Your task to perform on an android device: open app "Google Drive" (install if not already installed) Image 0: 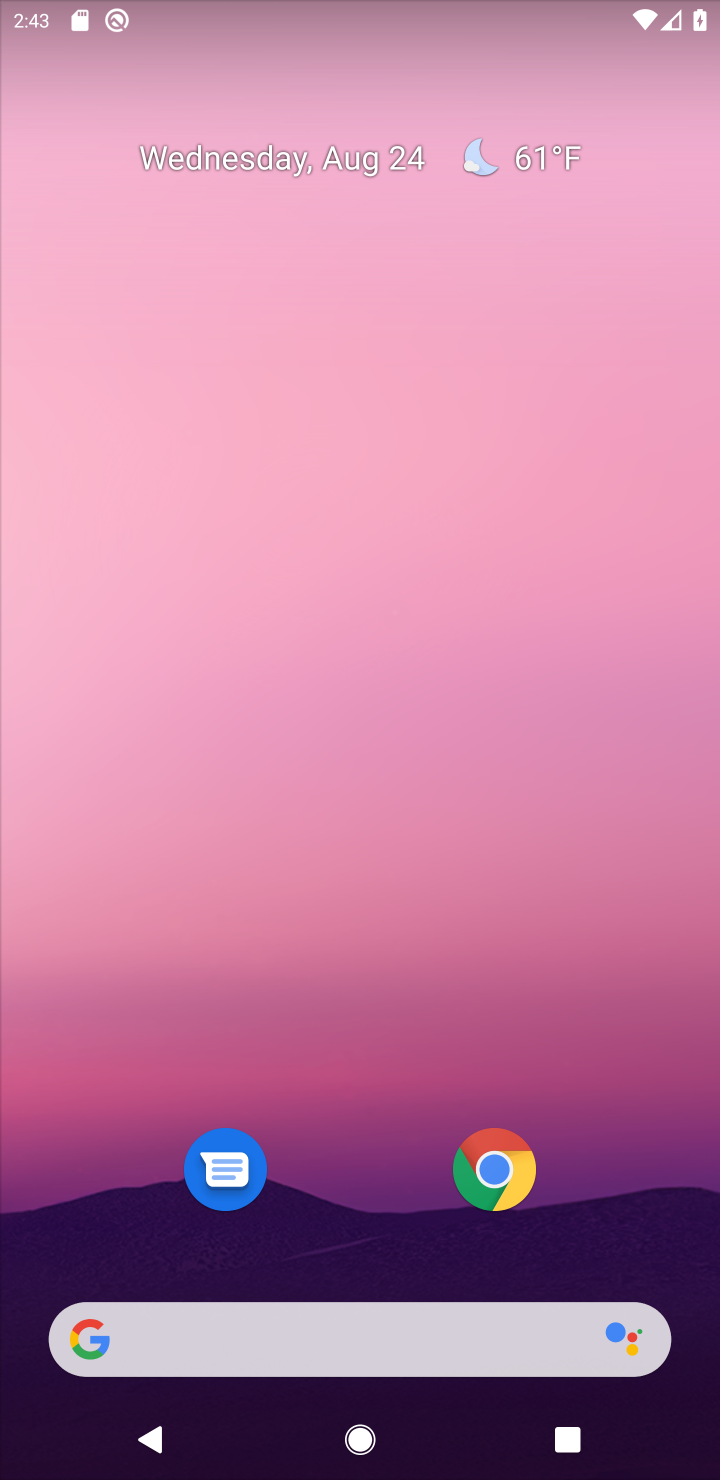
Step 0: drag from (387, 1251) to (342, 143)
Your task to perform on an android device: open app "Google Drive" (install if not already installed) Image 1: 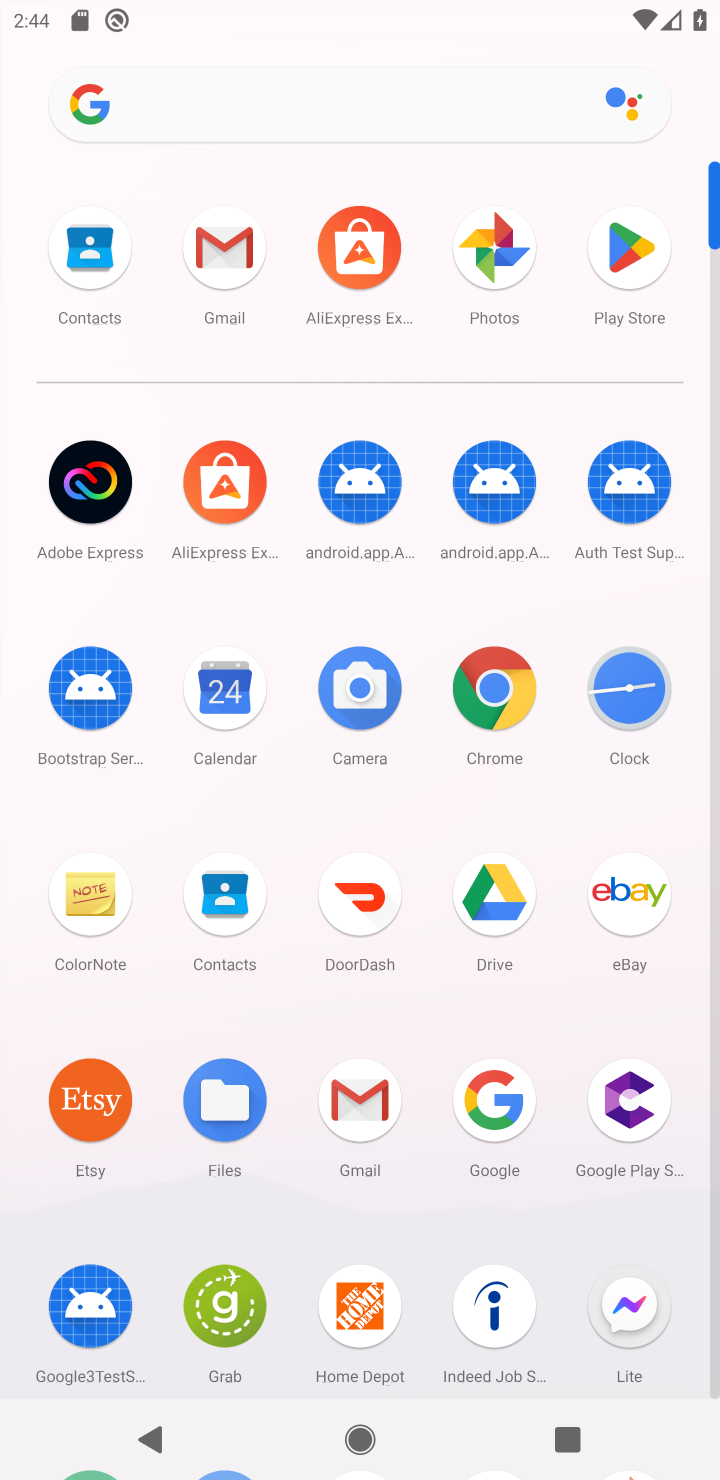
Step 1: click (651, 232)
Your task to perform on an android device: open app "Google Drive" (install if not already installed) Image 2: 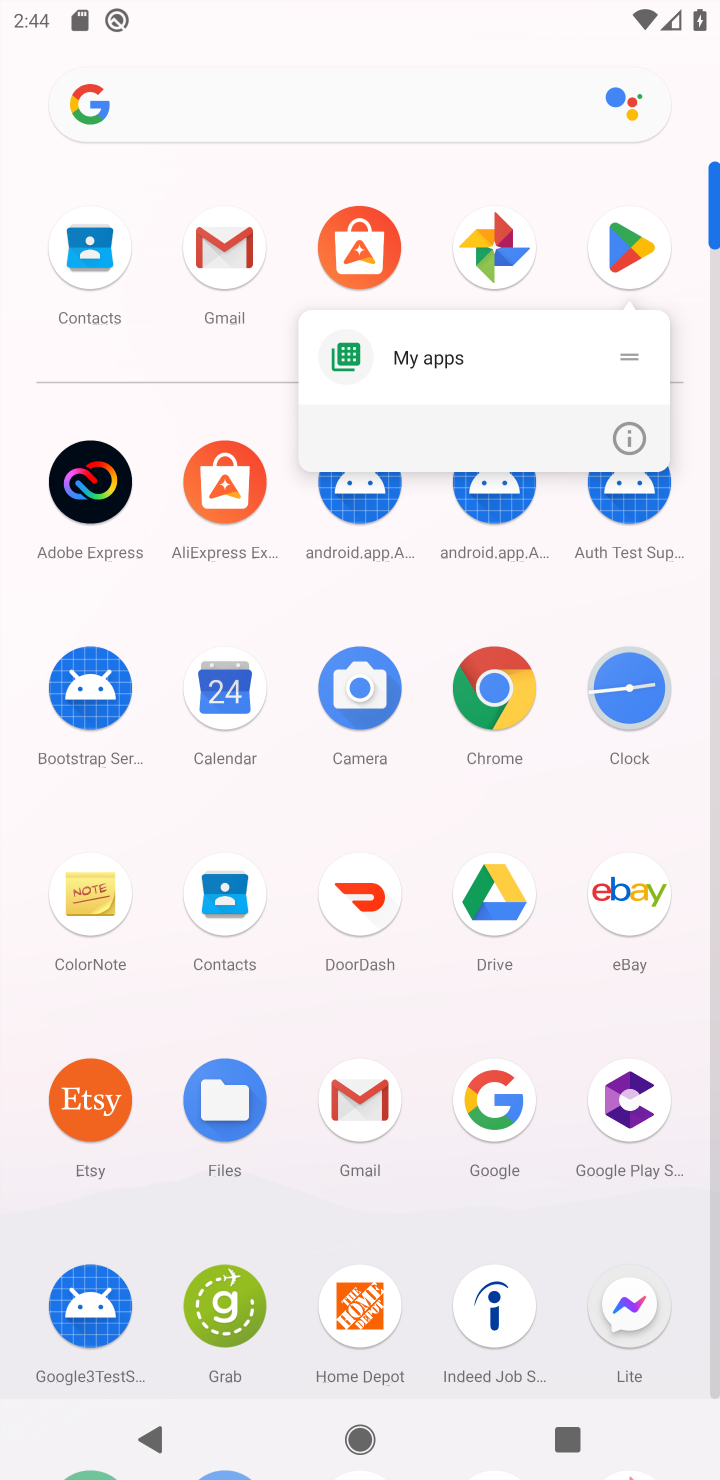
Step 2: click (620, 243)
Your task to perform on an android device: open app "Google Drive" (install if not already installed) Image 3: 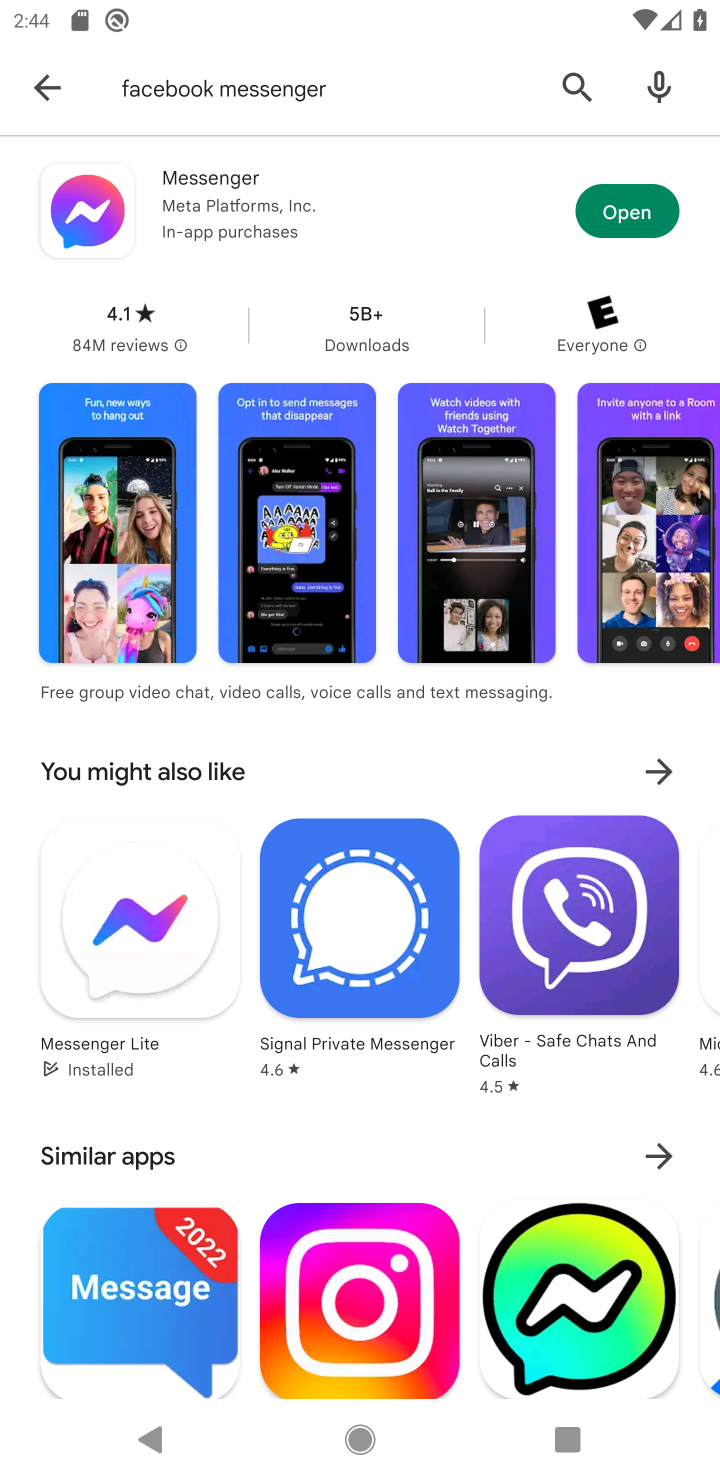
Step 3: click (113, 90)
Your task to perform on an android device: open app "Google Drive" (install if not already installed) Image 4: 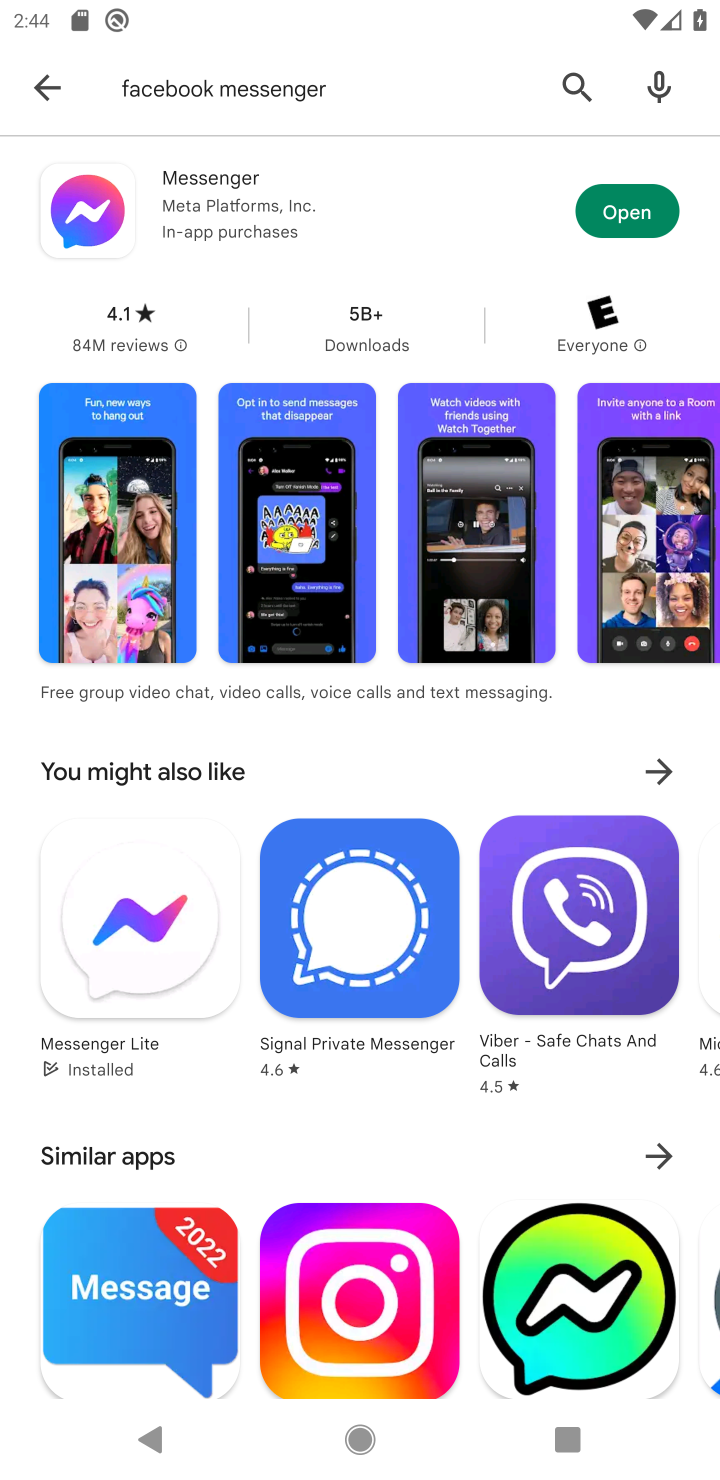
Step 4: click (567, 79)
Your task to perform on an android device: open app "Google Drive" (install if not already installed) Image 5: 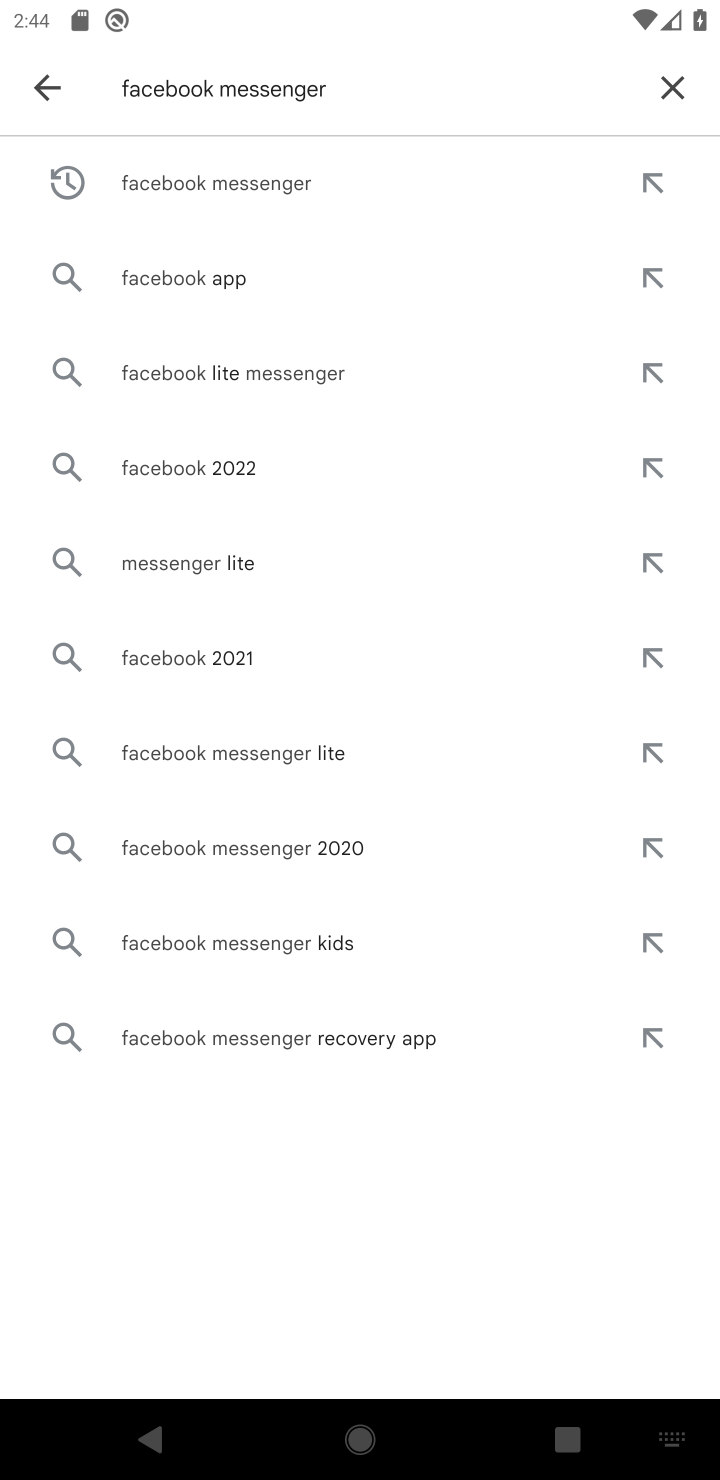
Step 5: click (664, 95)
Your task to perform on an android device: open app "Google Drive" (install if not already installed) Image 6: 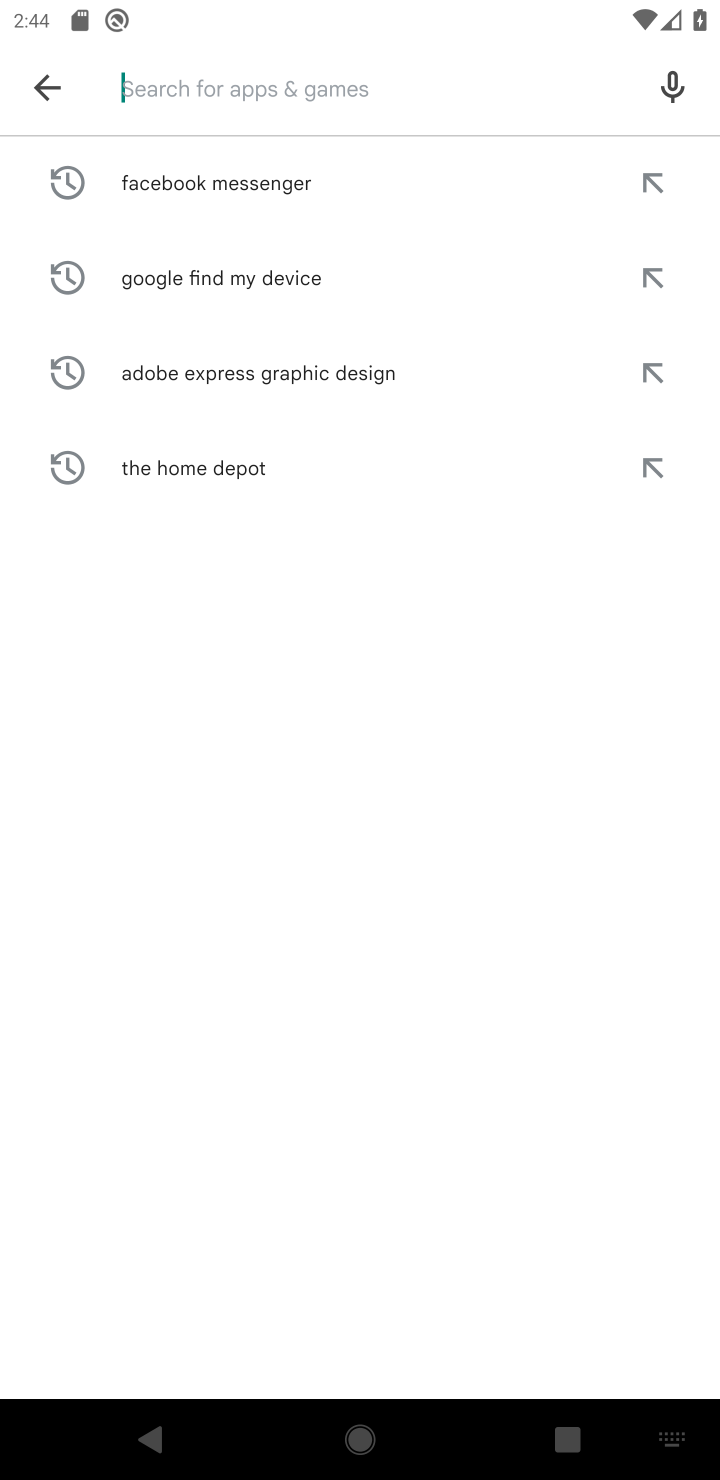
Step 6: type "Google Drive"
Your task to perform on an android device: open app "Google Drive" (install if not already installed) Image 7: 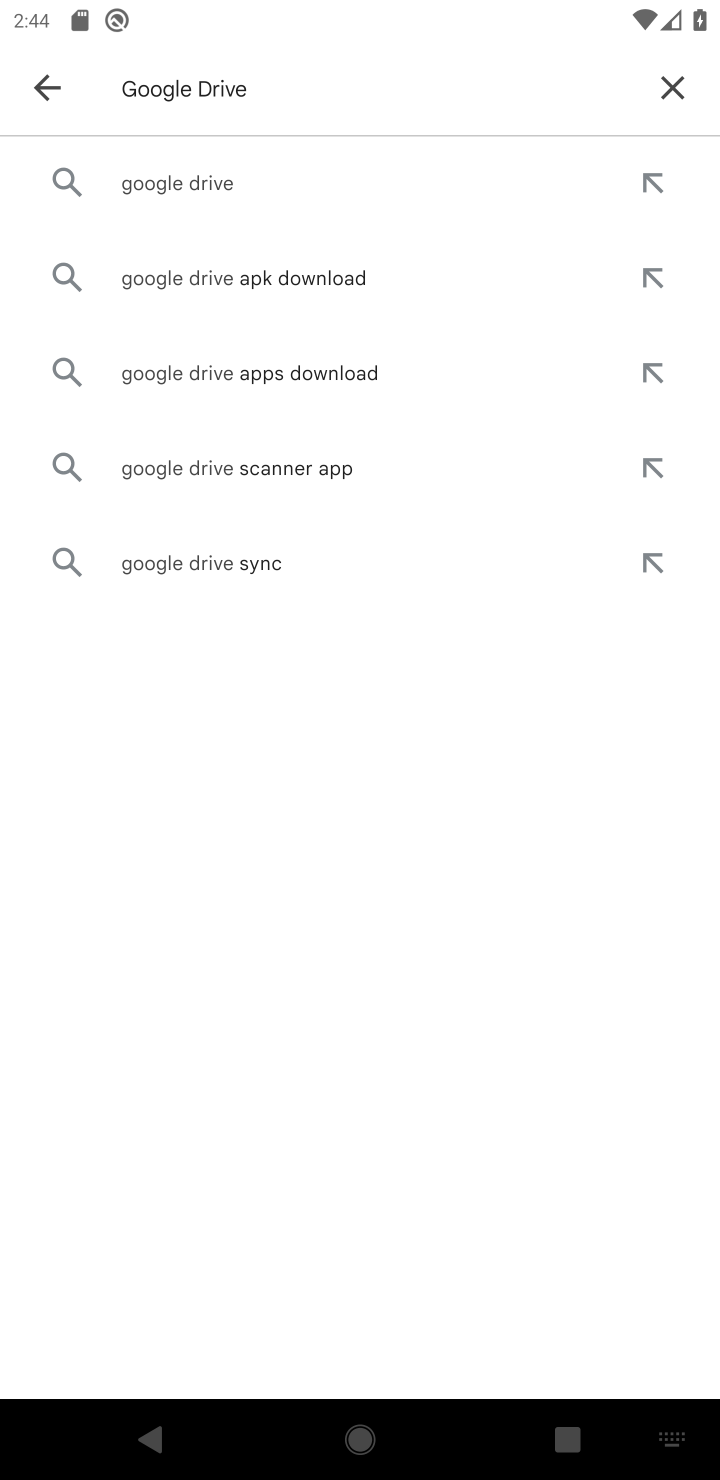
Step 7: click (168, 171)
Your task to perform on an android device: open app "Google Drive" (install if not already installed) Image 8: 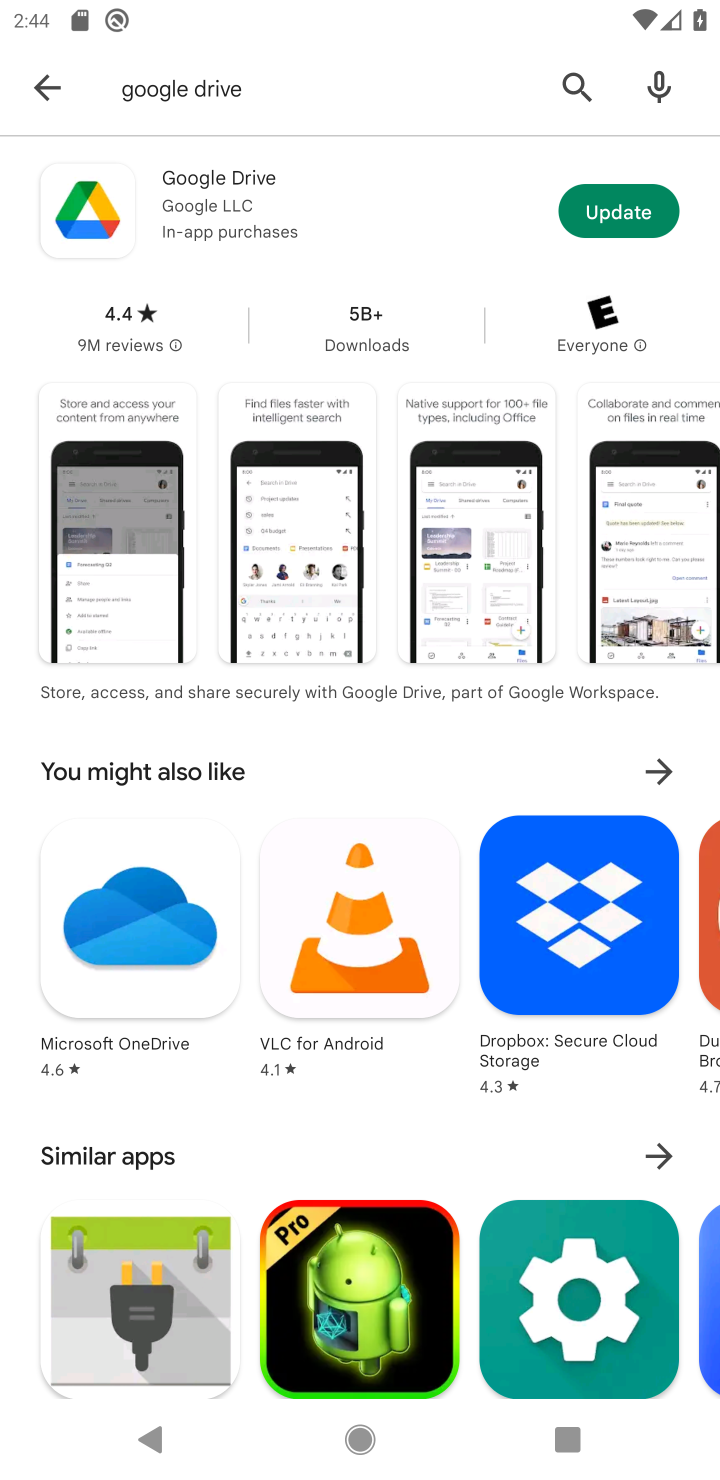
Step 8: click (581, 201)
Your task to perform on an android device: open app "Google Drive" (install if not already installed) Image 9: 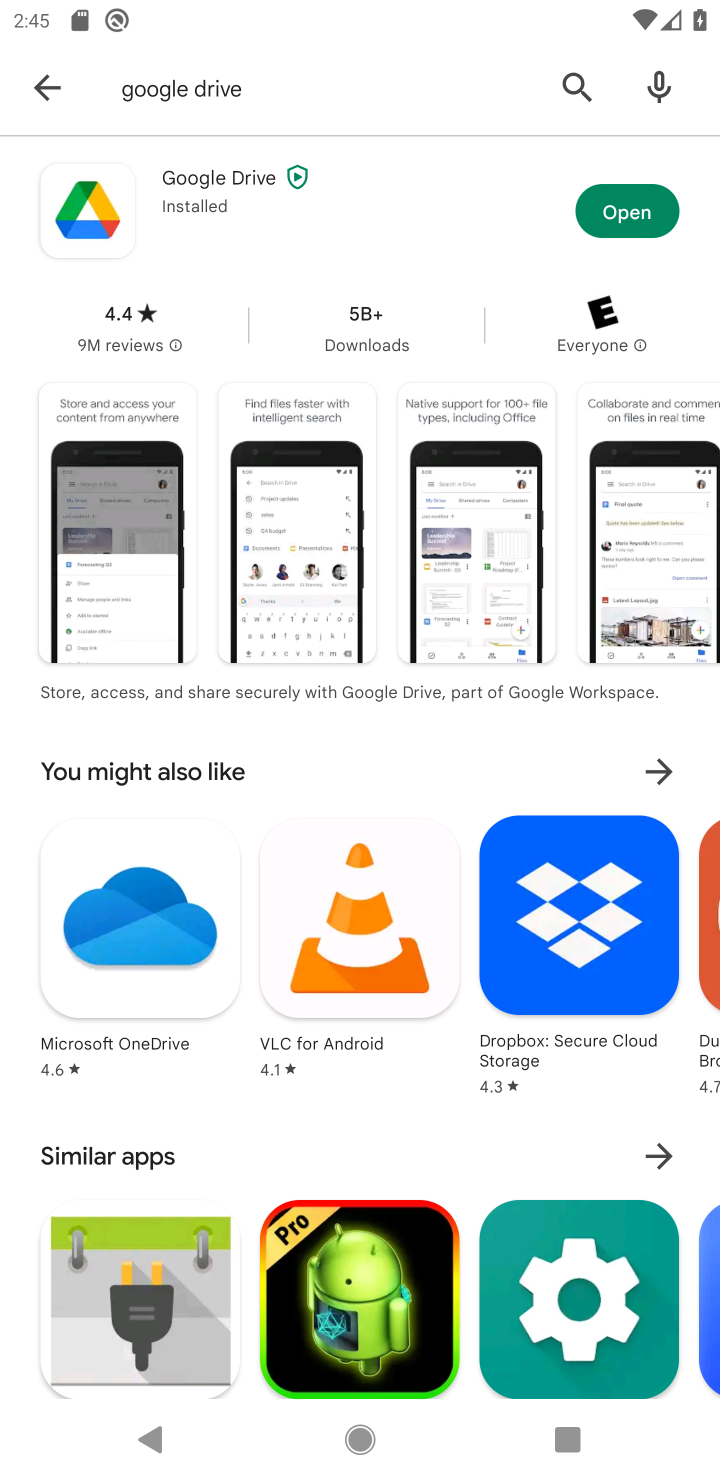
Step 9: click (613, 228)
Your task to perform on an android device: open app "Google Drive" (install if not already installed) Image 10: 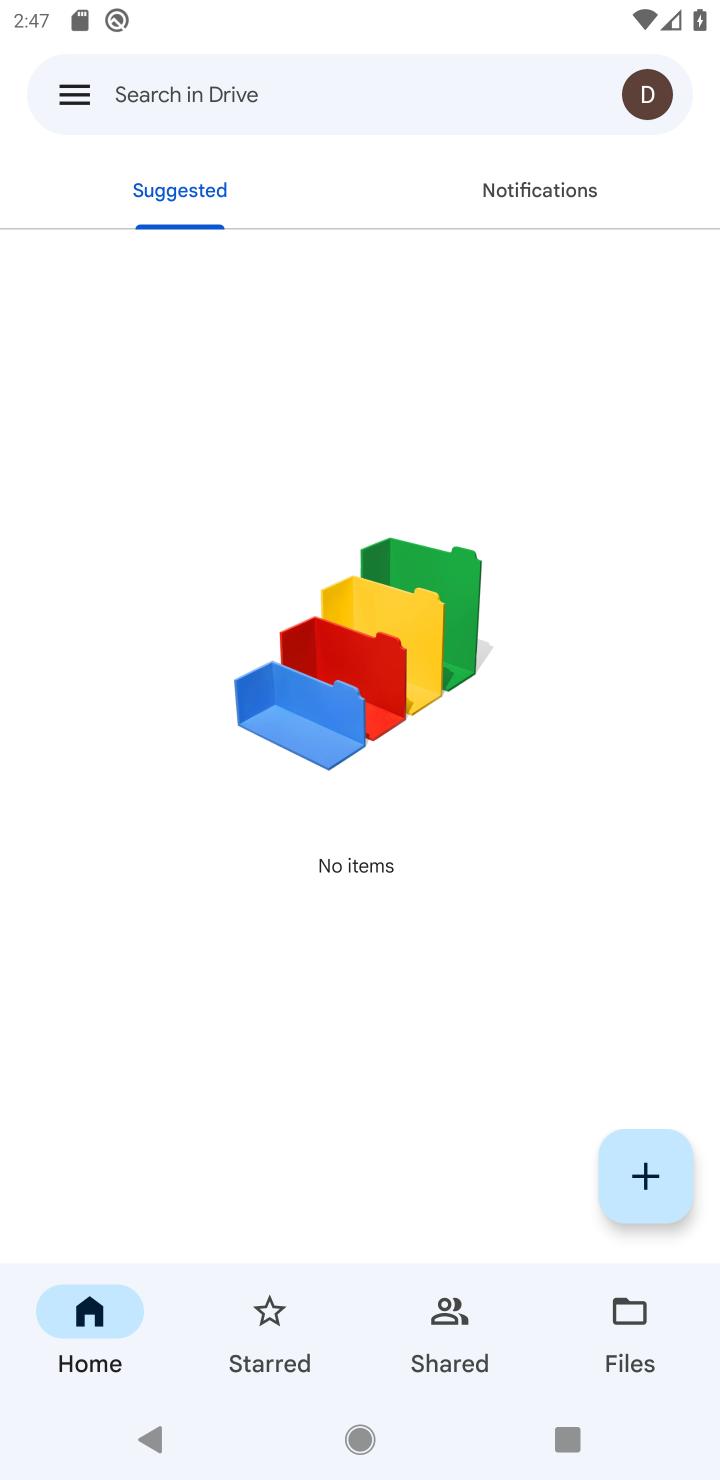
Step 10: press back button
Your task to perform on an android device: open app "Google Drive" (install if not already installed) Image 11: 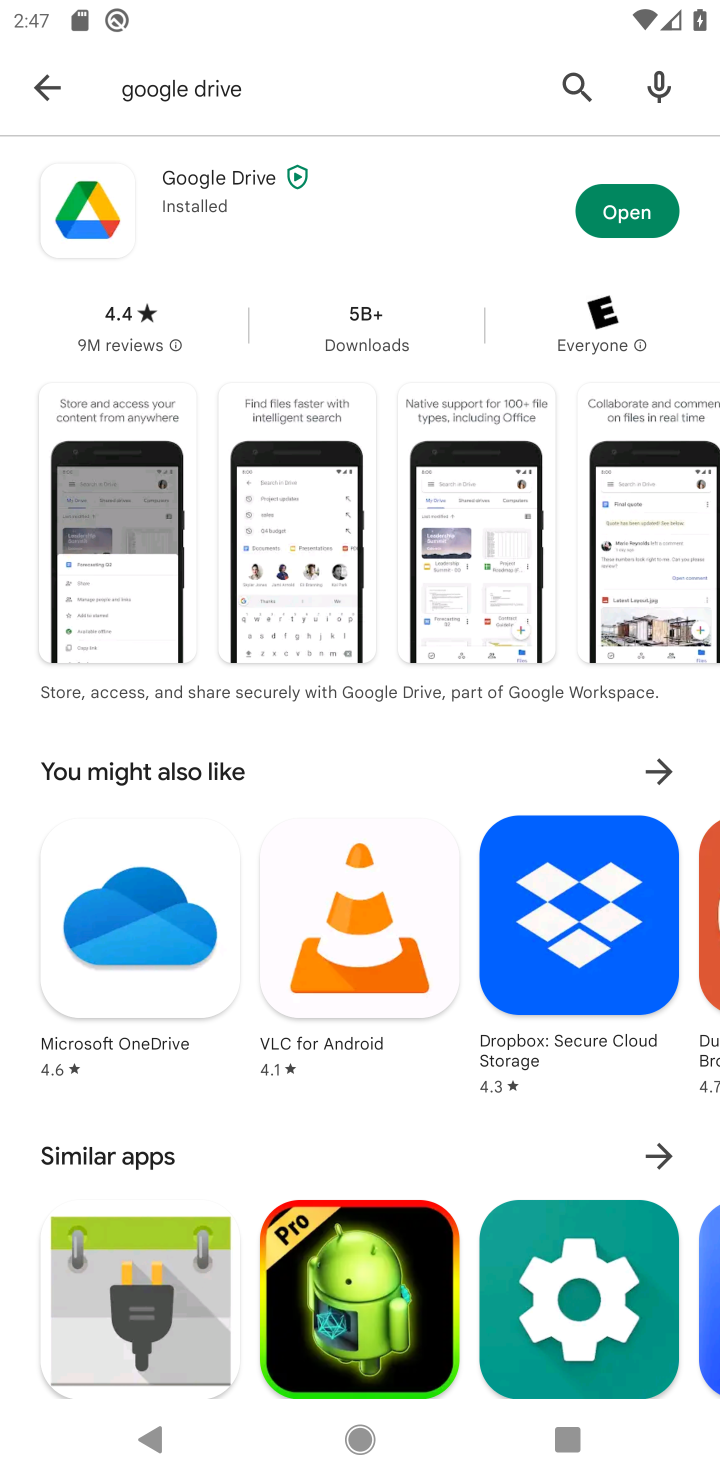
Step 11: click (583, 202)
Your task to perform on an android device: open app "Google Drive" (install if not already installed) Image 12: 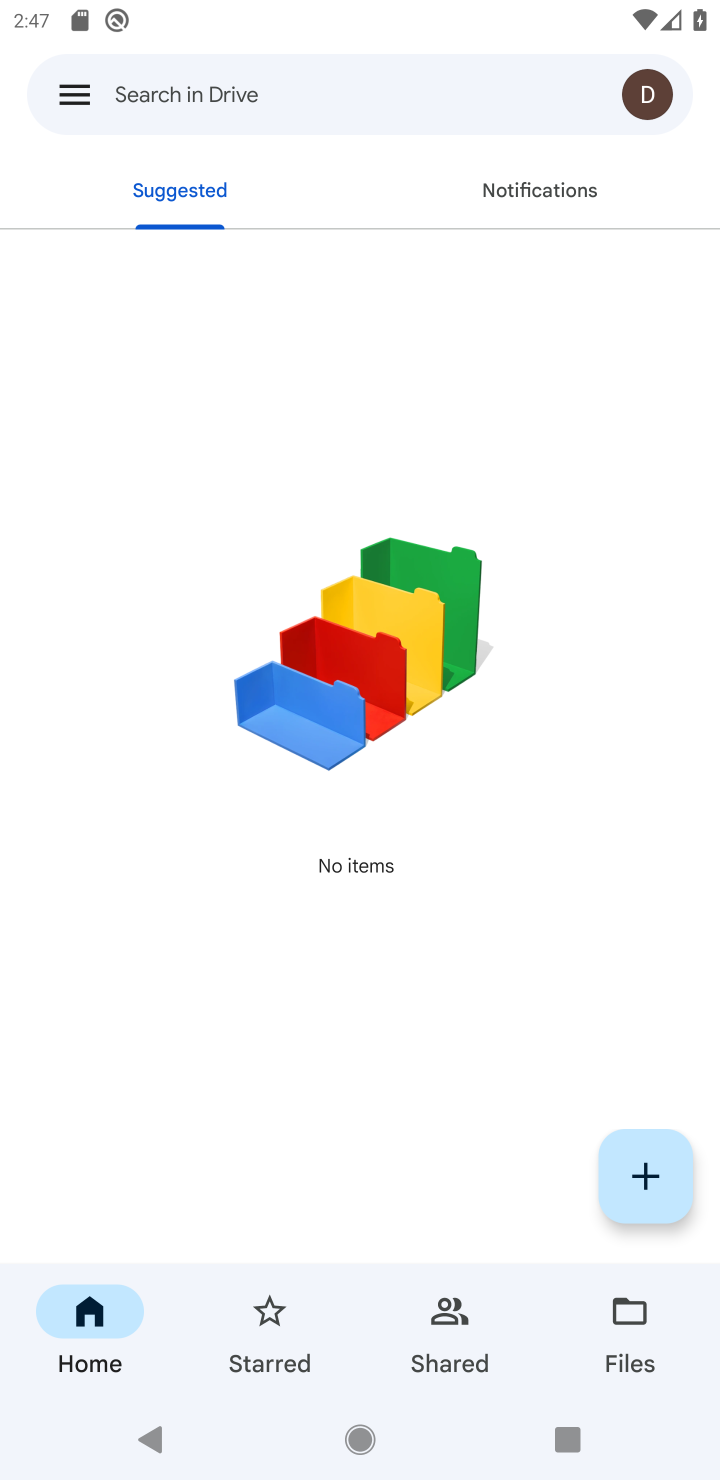
Step 12: task complete